Your task to perform on an android device: Search for Italian restaurants on Maps Image 0: 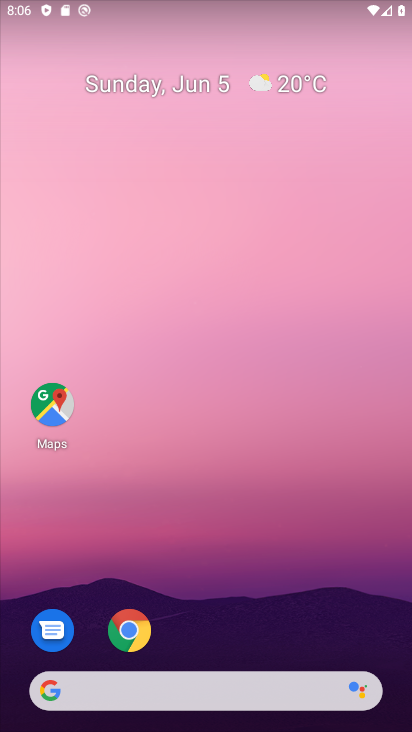
Step 0: click (52, 404)
Your task to perform on an android device: Search for Italian restaurants on Maps Image 1: 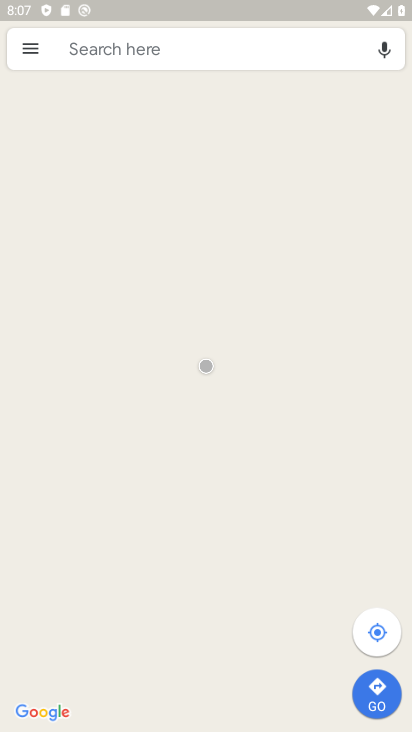
Step 1: click (177, 45)
Your task to perform on an android device: Search for Italian restaurants on Maps Image 2: 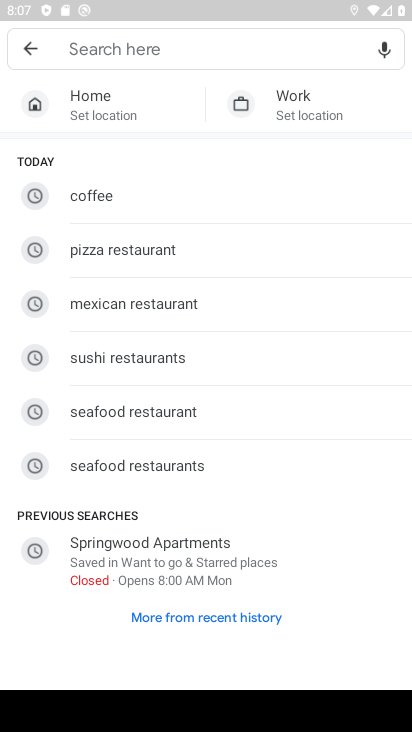
Step 2: type "Italian restaurants"
Your task to perform on an android device: Search for Italian restaurants on Maps Image 3: 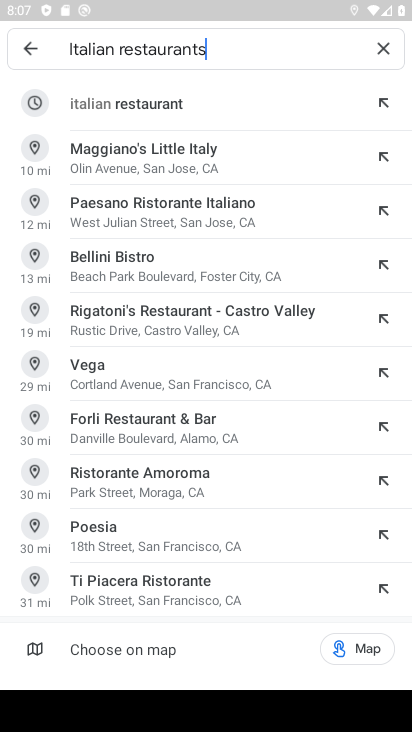
Step 3: click (163, 101)
Your task to perform on an android device: Search for Italian restaurants on Maps Image 4: 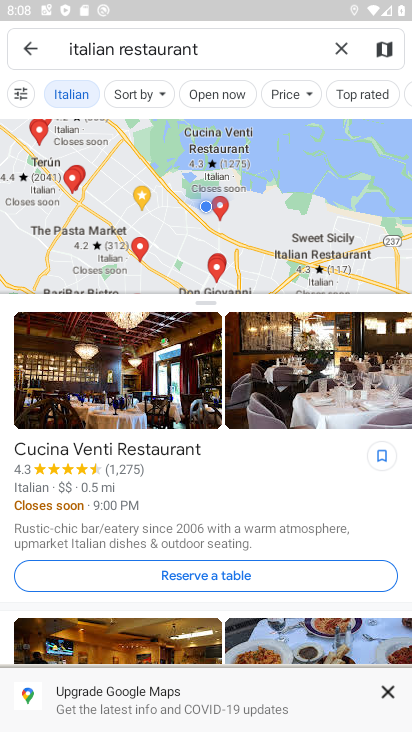
Step 4: task complete